Your task to perform on an android device: Go to Yahoo.com Image 0: 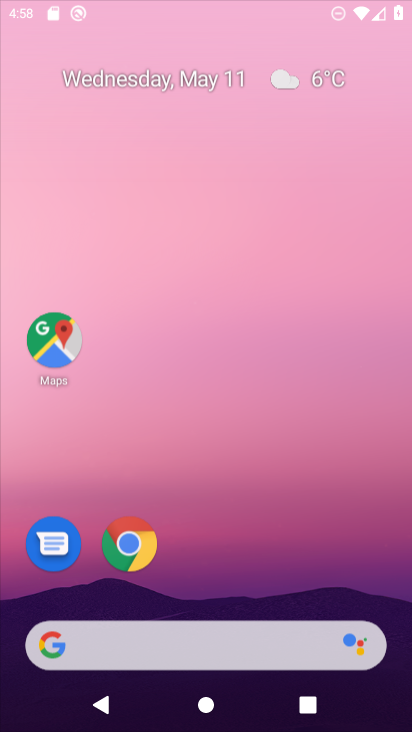
Step 0: click (233, 203)
Your task to perform on an android device: Go to Yahoo.com Image 1: 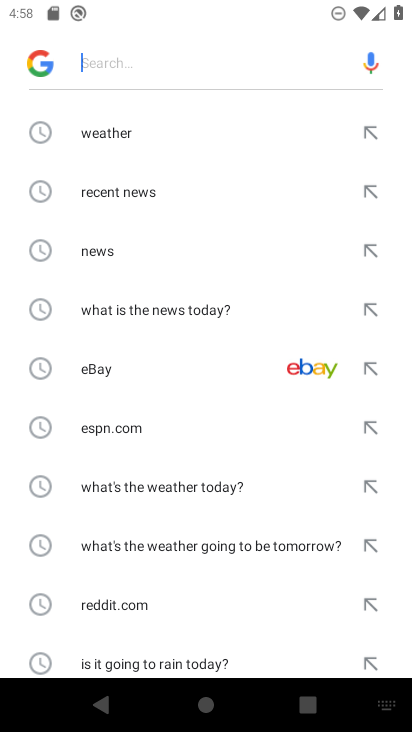
Step 1: drag from (141, 604) to (104, 307)
Your task to perform on an android device: Go to Yahoo.com Image 2: 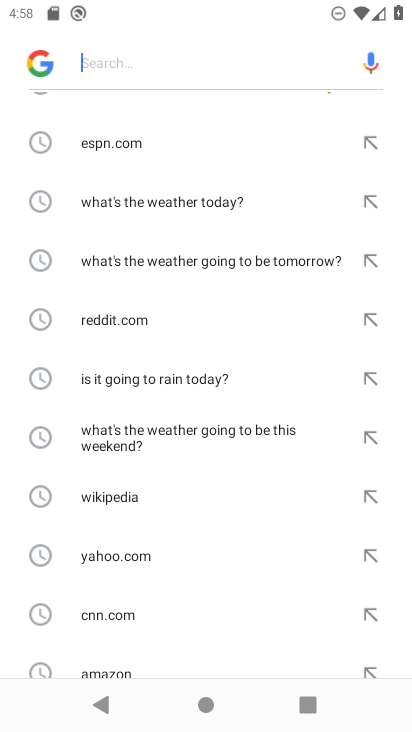
Step 2: click (93, 564)
Your task to perform on an android device: Go to Yahoo.com Image 3: 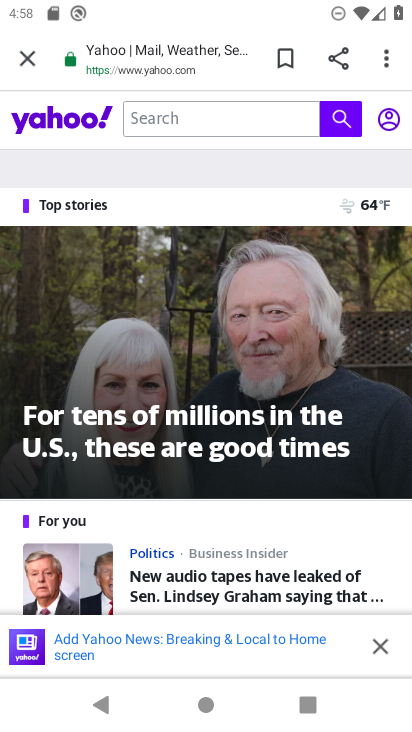
Step 3: task complete